Your task to perform on an android device: Open Chrome and go to settings Image 0: 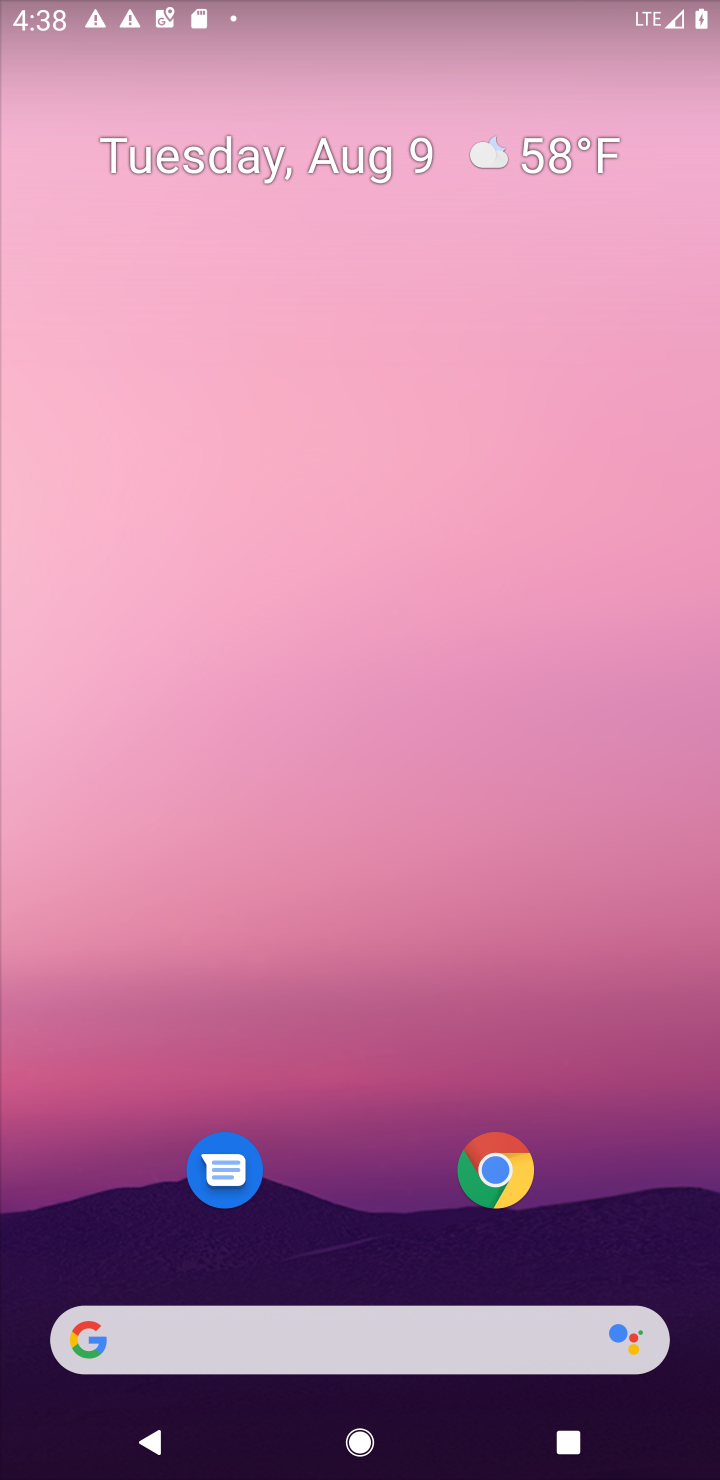
Step 0: press home button
Your task to perform on an android device: Open Chrome and go to settings Image 1: 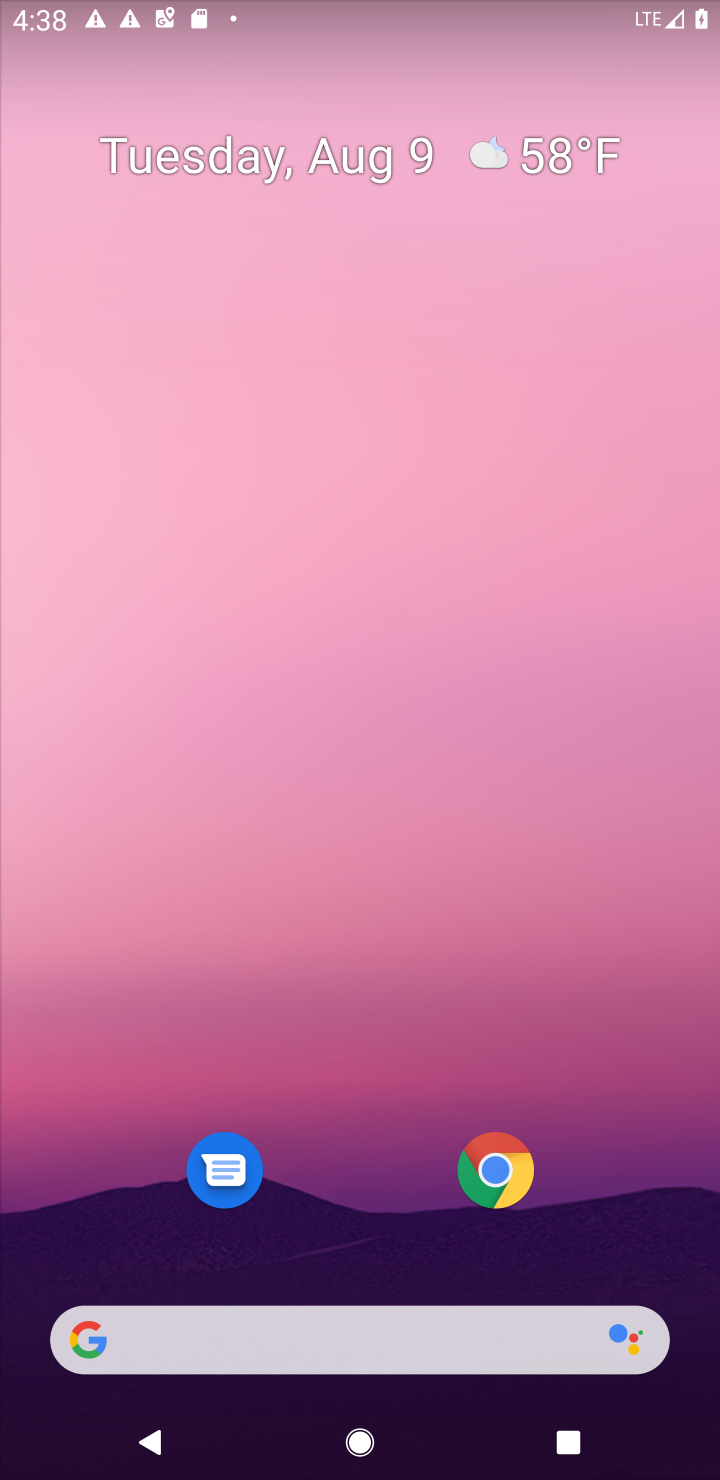
Step 1: click (499, 1168)
Your task to perform on an android device: Open Chrome and go to settings Image 2: 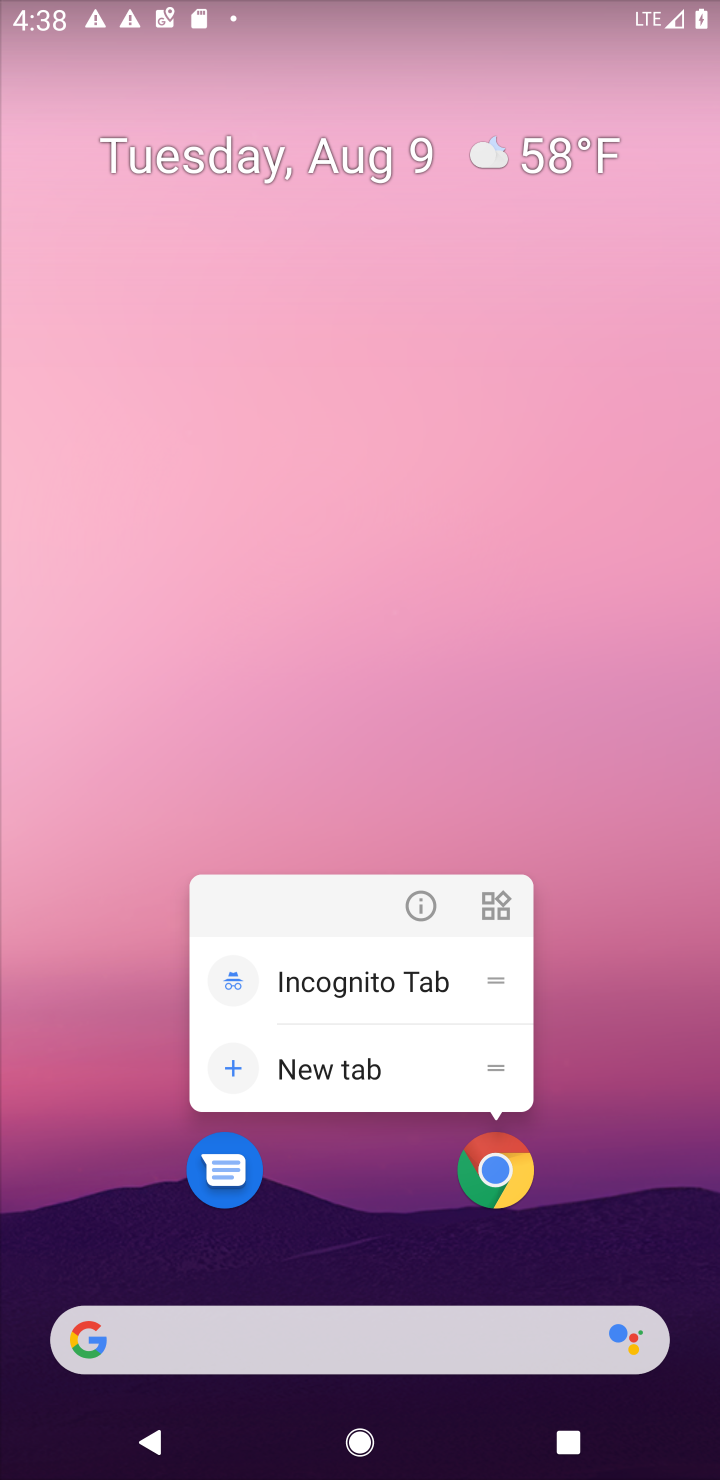
Step 2: click (509, 1163)
Your task to perform on an android device: Open Chrome and go to settings Image 3: 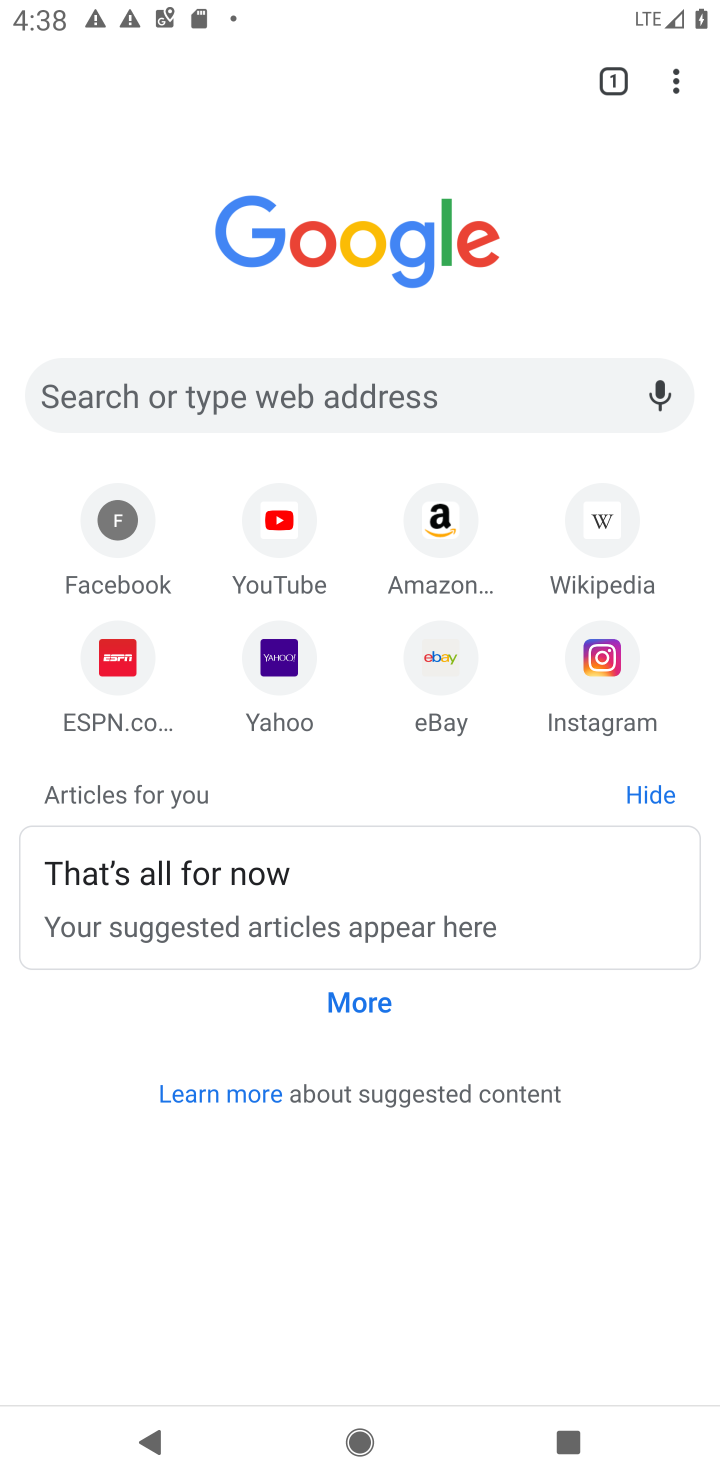
Step 3: task complete